Your task to perform on an android device: toggle improve location accuracy Image 0: 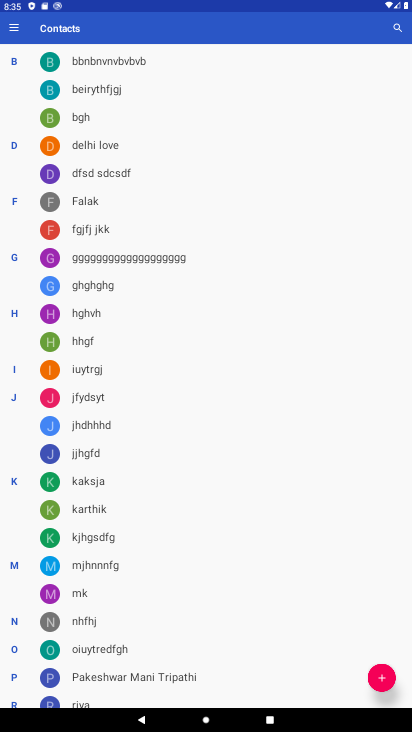
Step 0: drag from (152, 503) to (190, 323)
Your task to perform on an android device: toggle improve location accuracy Image 1: 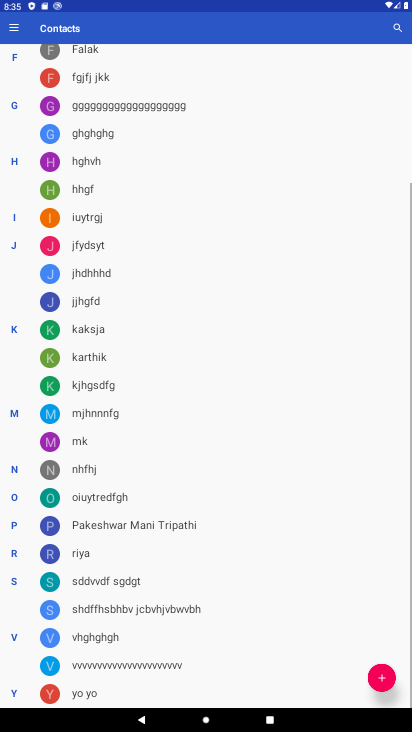
Step 1: drag from (202, 299) to (230, 707)
Your task to perform on an android device: toggle improve location accuracy Image 2: 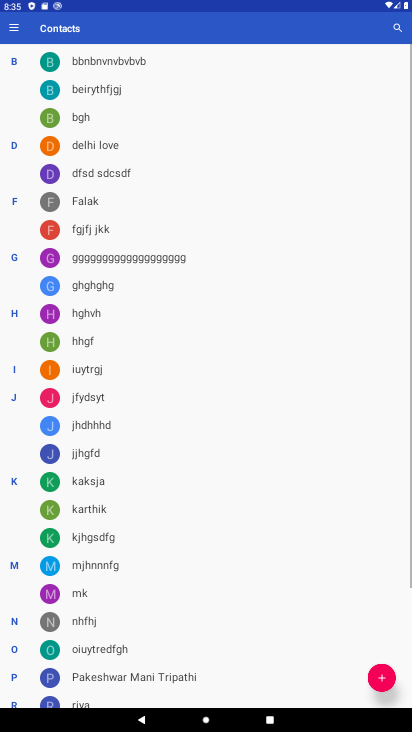
Step 2: press home button
Your task to perform on an android device: toggle improve location accuracy Image 3: 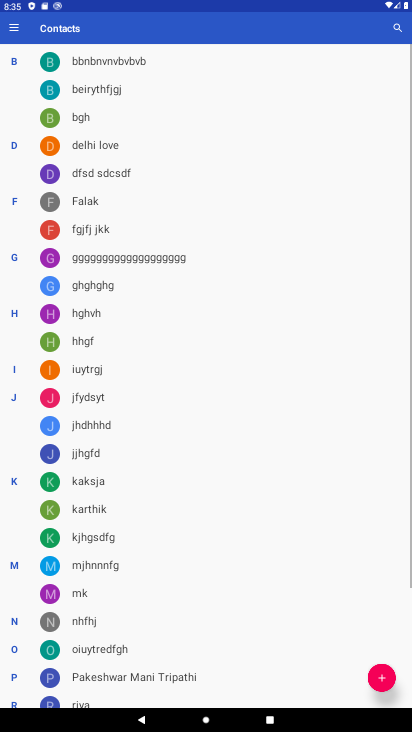
Step 3: click (366, 443)
Your task to perform on an android device: toggle improve location accuracy Image 4: 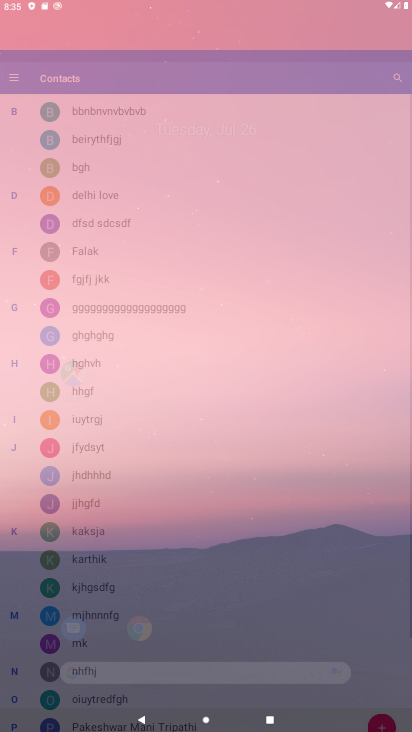
Step 4: drag from (136, 575) to (232, 118)
Your task to perform on an android device: toggle improve location accuracy Image 5: 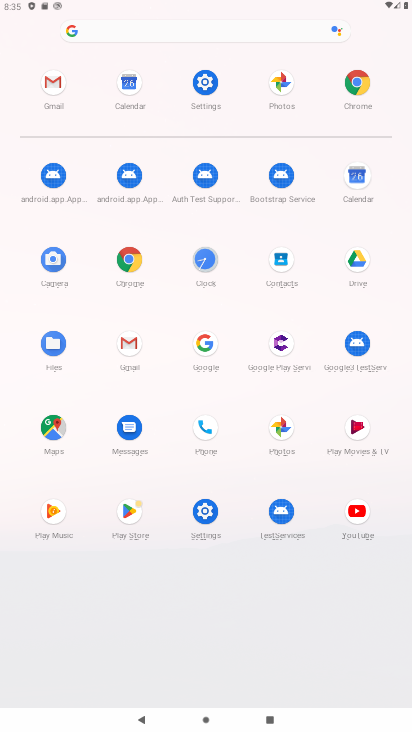
Step 5: click (198, 86)
Your task to perform on an android device: toggle improve location accuracy Image 6: 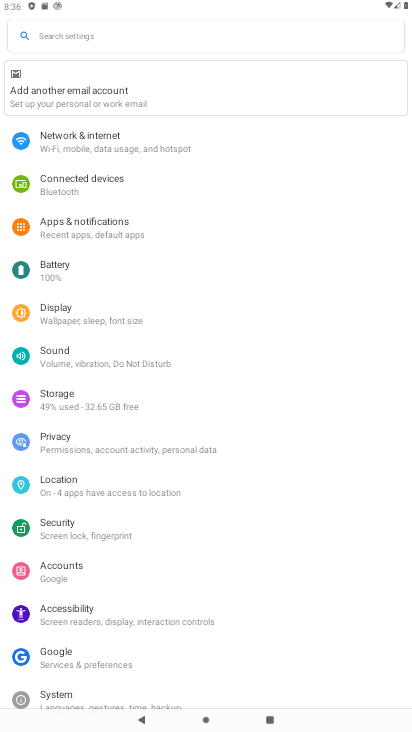
Step 6: drag from (140, 516) to (268, 221)
Your task to perform on an android device: toggle improve location accuracy Image 7: 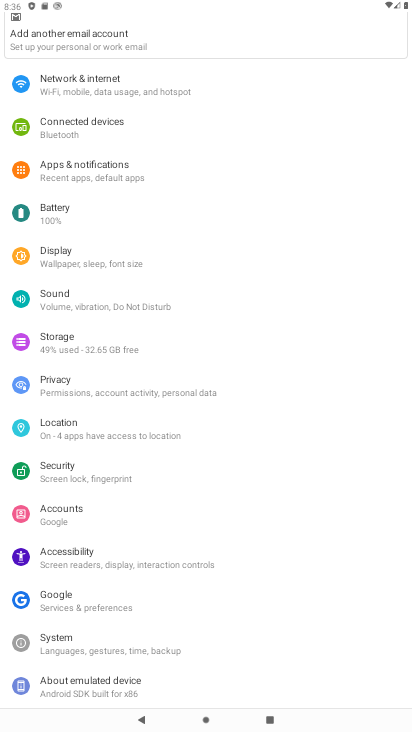
Step 7: click (71, 413)
Your task to perform on an android device: toggle improve location accuracy Image 8: 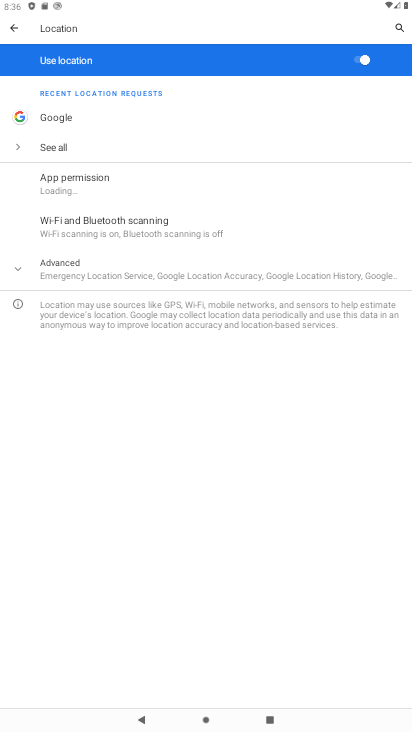
Step 8: click (118, 260)
Your task to perform on an android device: toggle improve location accuracy Image 9: 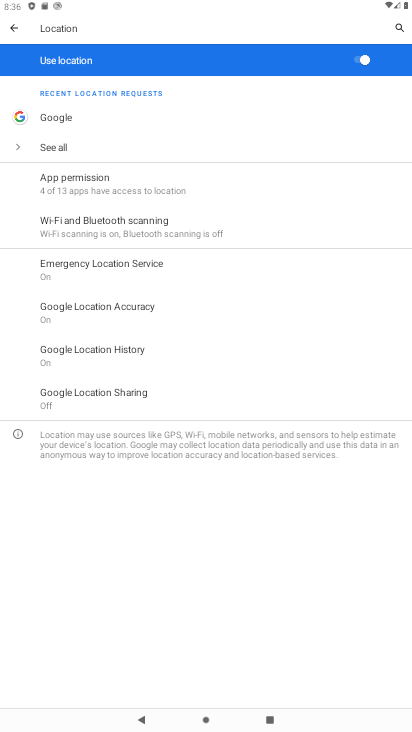
Step 9: click (160, 305)
Your task to perform on an android device: toggle improve location accuracy Image 10: 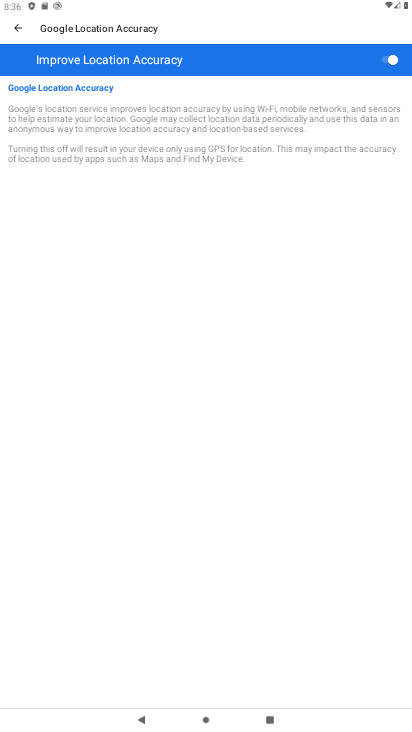
Step 10: drag from (160, 407) to (282, 259)
Your task to perform on an android device: toggle improve location accuracy Image 11: 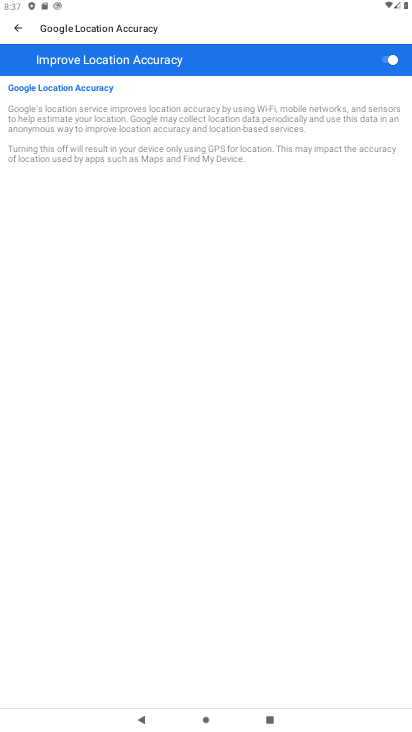
Step 11: click (385, 54)
Your task to perform on an android device: toggle improve location accuracy Image 12: 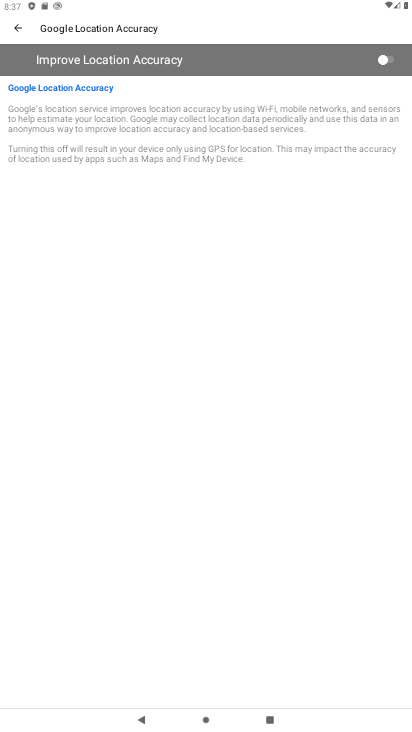
Step 12: task complete